Your task to perform on an android device: Open my contact list Image 0: 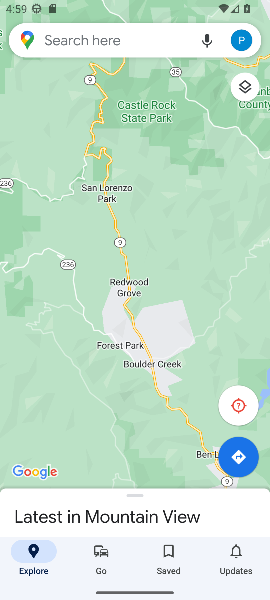
Step 0: press home button
Your task to perform on an android device: Open my contact list Image 1: 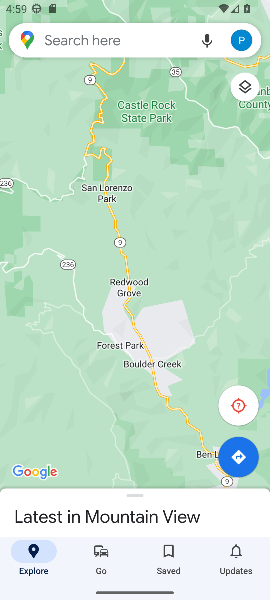
Step 1: press home button
Your task to perform on an android device: Open my contact list Image 2: 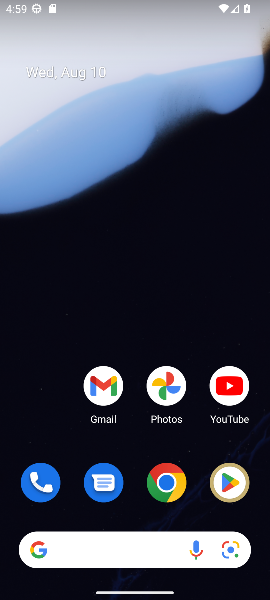
Step 2: drag from (51, 428) to (98, 21)
Your task to perform on an android device: Open my contact list Image 3: 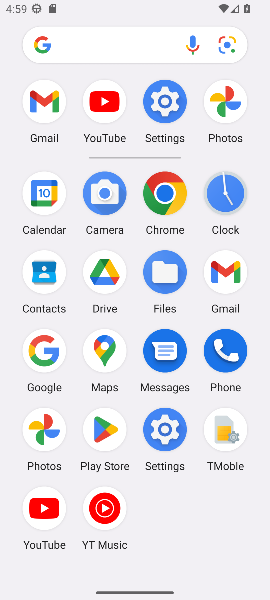
Step 3: click (43, 266)
Your task to perform on an android device: Open my contact list Image 4: 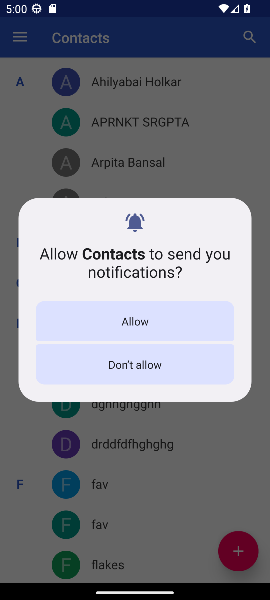
Step 4: click (108, 364)
Your task to perform on an android device: Open my contact list Image 5: 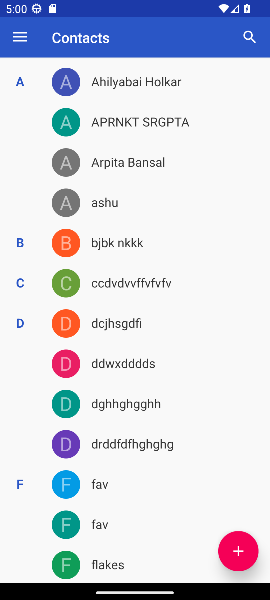
Step 5: task complete